Your task to perform on an android device: change your default location settings in chrome Image 0: 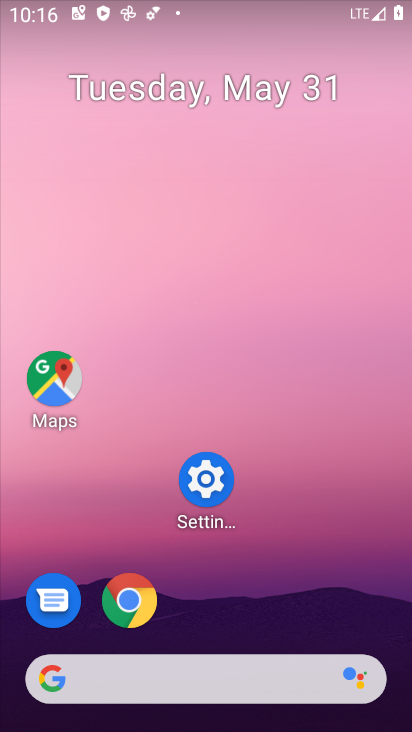
Step 0: click (132, 602)
Your task to perform on an android device: change your default location settings in chrome Image 1: 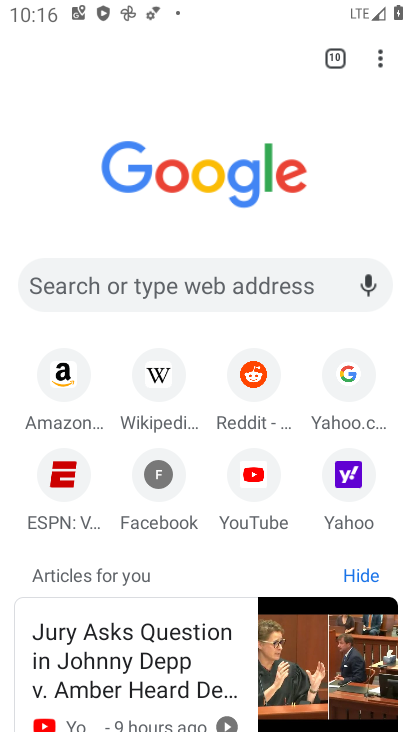
Step 1: click (378, 68)
Your task to perform on an android device: change your default location settings in chrome Image 2: 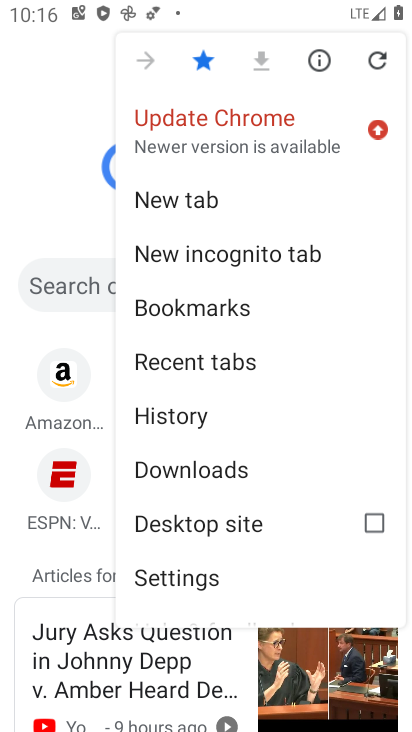
Step 2: click (212, 578)
Your task to perform on an android device: change your default location settings in chrome Image 3: 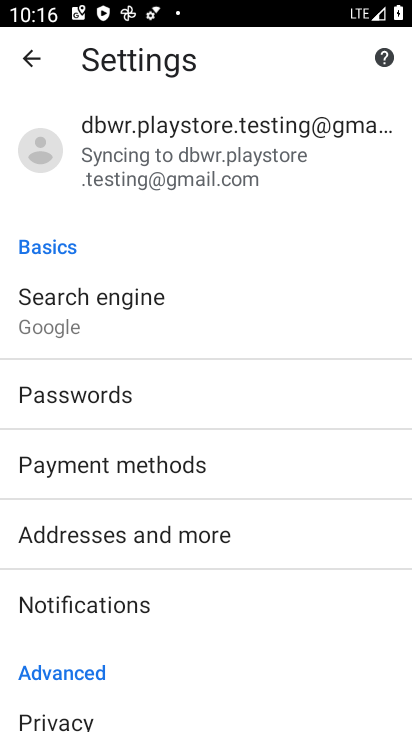
Step 3: drag from (159, 615) to (237, 358)
Your task to perform on an android device: change your default location settings in chrome Image 4: 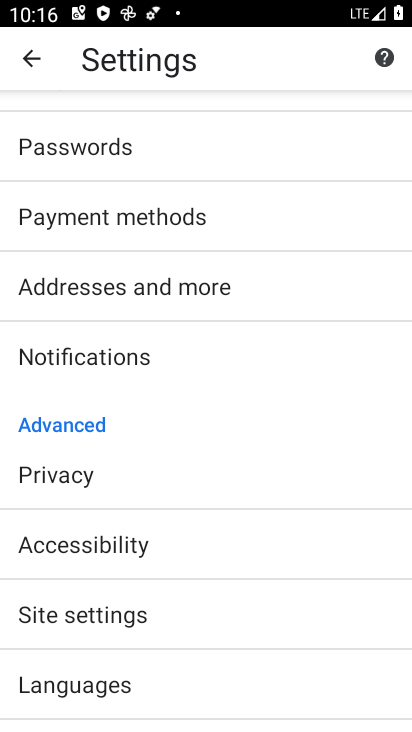
Step 4: click (112, 606)
Your task to perform on an android device: change your default location settings in chrome Image 5: 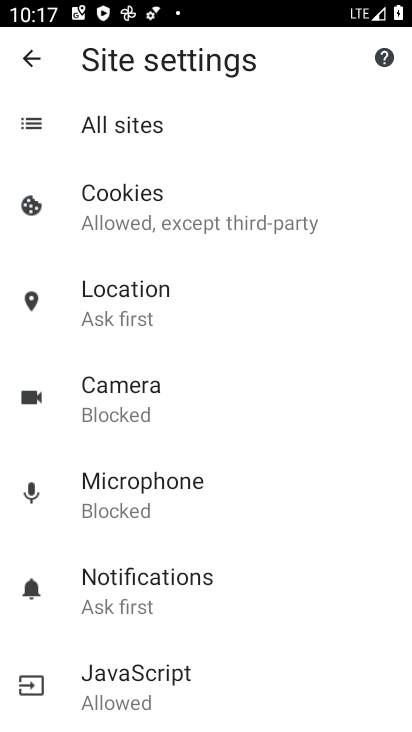
Step 5: click (150, 314)
Your task to perform on an android device: change your default location settings in chrome Image 6: 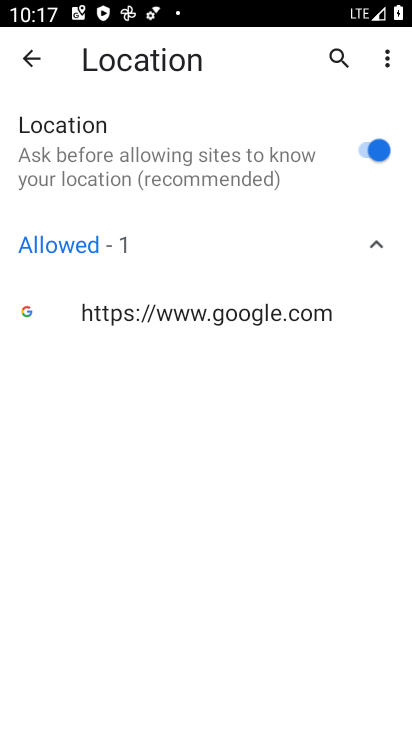
Step 6: task complete